Your task to perform on an android device: toggle airplane mode Image 0: 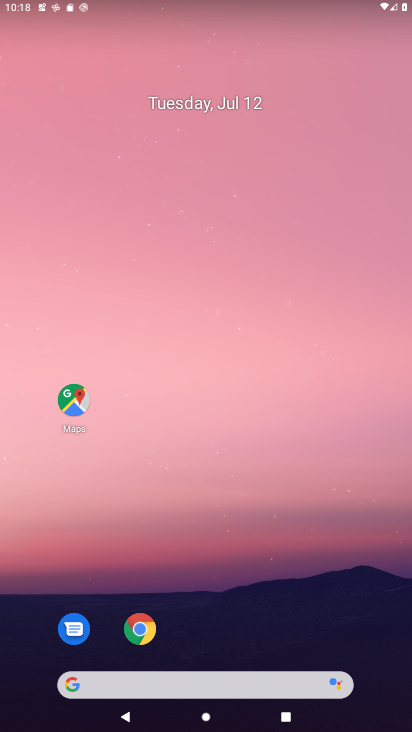
Step 0: drag from (195, 669) to (289, 41)
Your task to perform on an android device: toggle airplane mode Image 1: 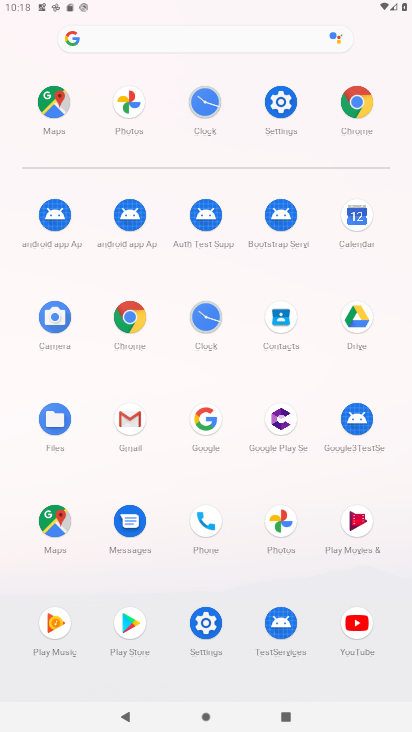
Step 1: click (282, 99)
Your task to perform on an android device: toggle airplane mode Image 2: 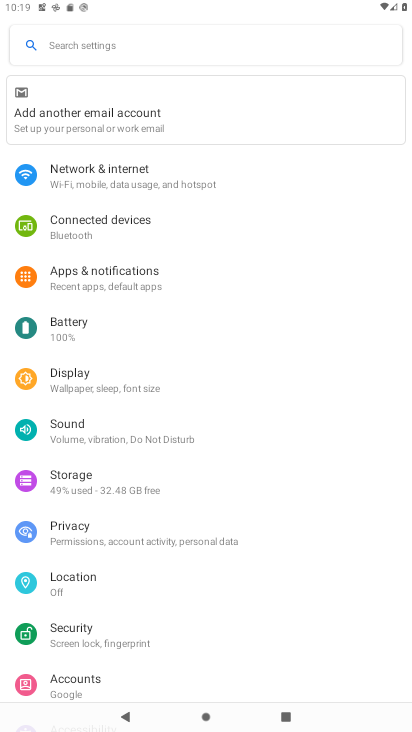
Step 2: click (186, 176)
Your task to perform on an android device: toggle airplane mode Image 3: 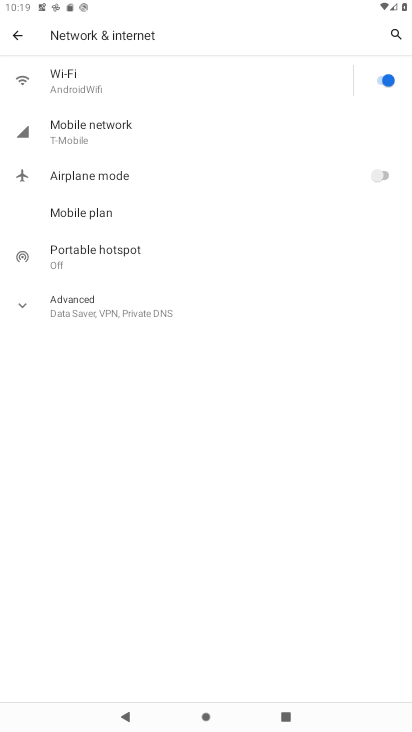
Step 3: click (379, 172)
Your task to perform on an android device: toggle airplane mode Image 4: 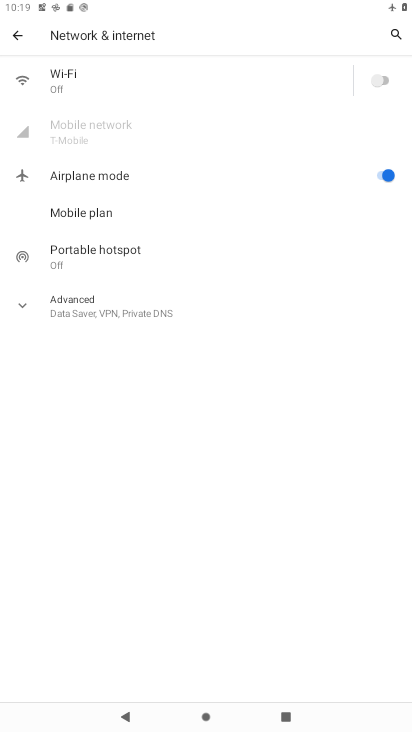
Step 4: task complete